Your task to perform on an android device: Open maps Image 0: 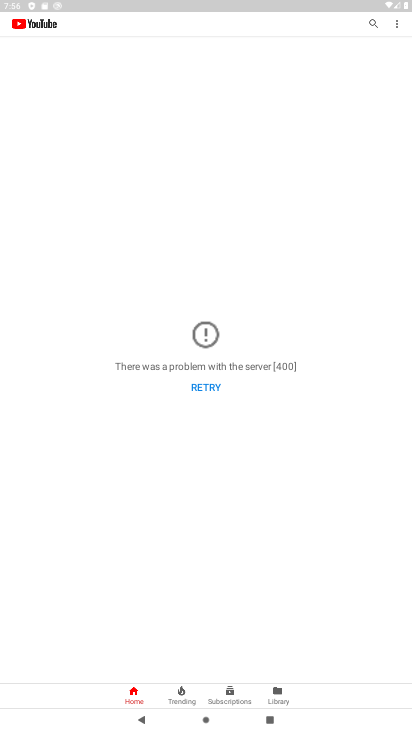
Step 0: press home button
Your task to perform on an android device: Open maps Image 1: 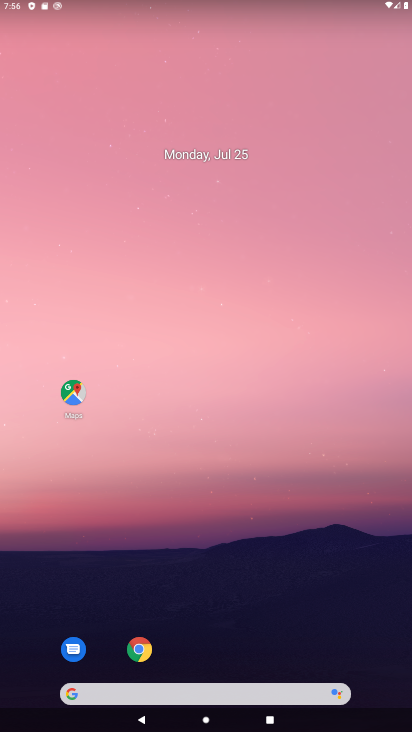
Step 1: click (77, 397)
Your task to perform on an android device: Open maps Image 2: 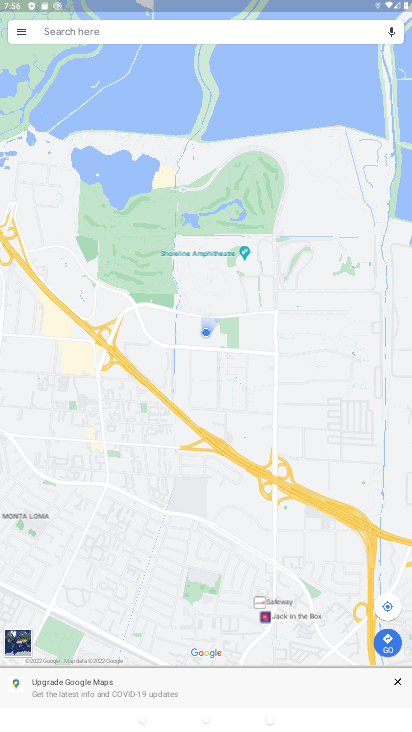
Step 2: click (159, 32)
Your task to perform on an android device: Open maps Image 3: 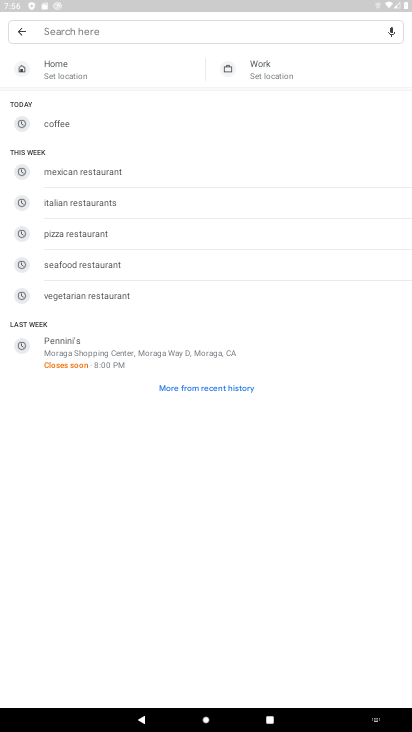
Step 3: task complete